Your task to perform on an android device: Open Chrome and go to settings Image 0: 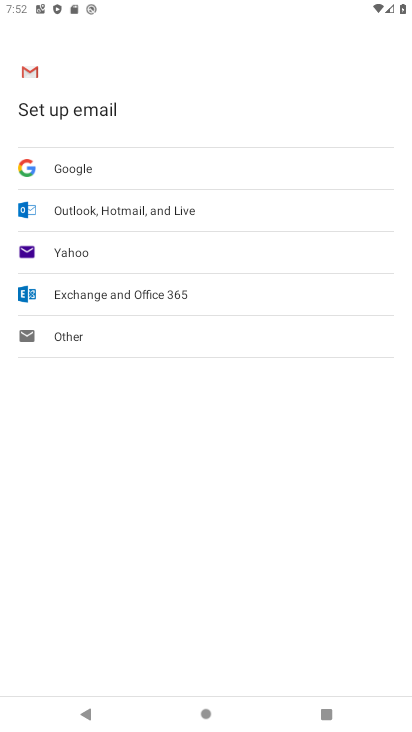
Step 0: press home button
Your task to perform on an android device: Open Chrome and go to settings Image 1: 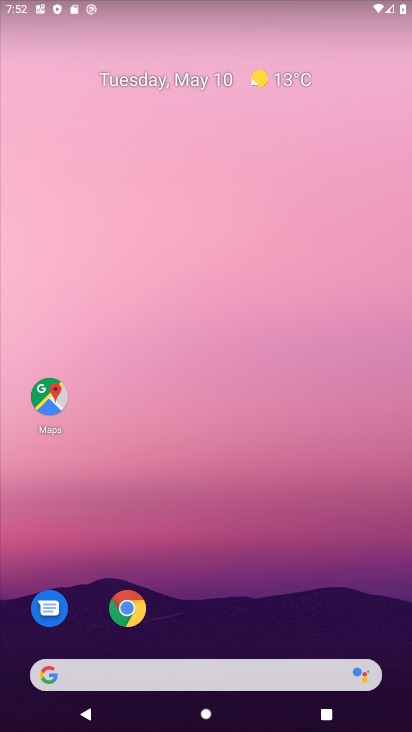
Step 1: click (126, 618)
Your task to perform on an android device: Open Chrome and go to settings Image 2: 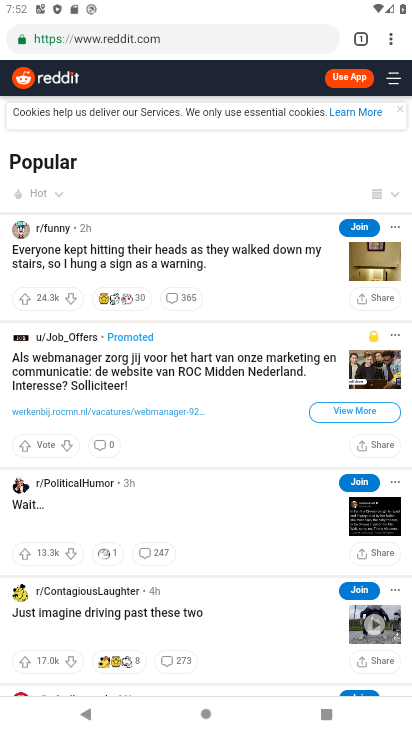
Step 2: click (392, 40)
Your task to perform on an android device: Open Chrome and go to settings Image 3: 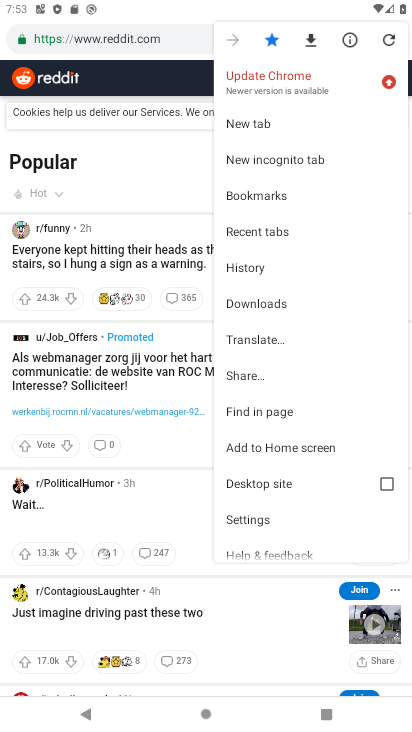
Step 3: click (259, 516)
Your task to perform on an android device: Open Chrome and go to settings Image 4: 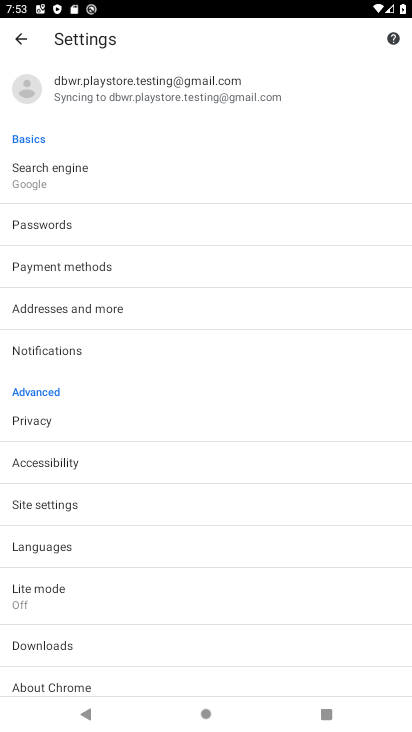
Step 4: task complete